Your task to perform on an android device: Go to Android settings Image 0: 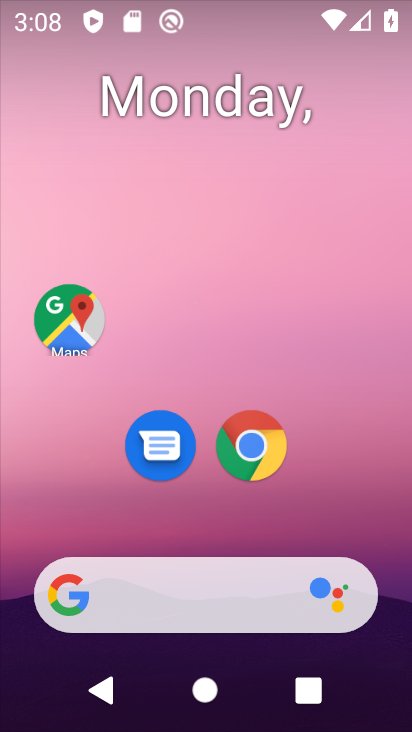
Step 0: drag from (357, 493) to (369, 92)
Your task to perform on an android device: Go to Android settings Image 1: 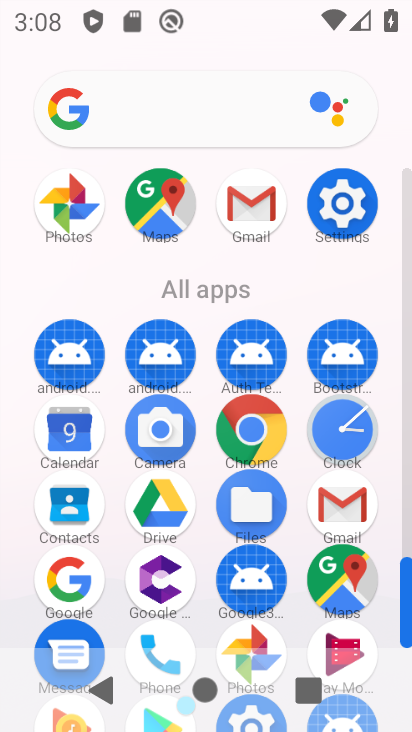
Step 1: click (335, 206)
Your task to perform on an android device: Go to Android settings Image 2: 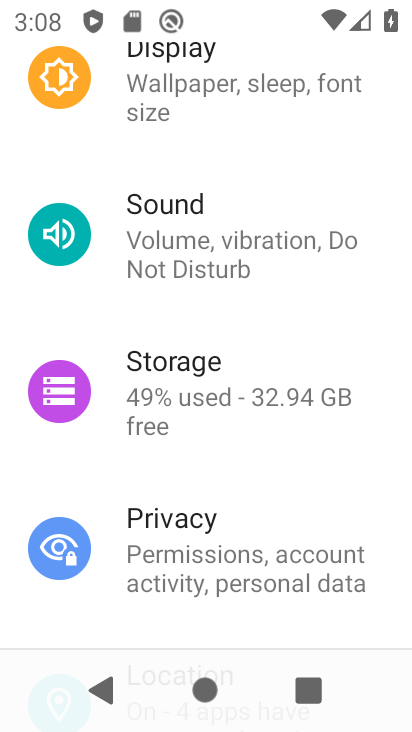
Step 2: drag from (211, 564) to (214, 113)
Your task to perform on an android device: Go to Android settings Image 3: 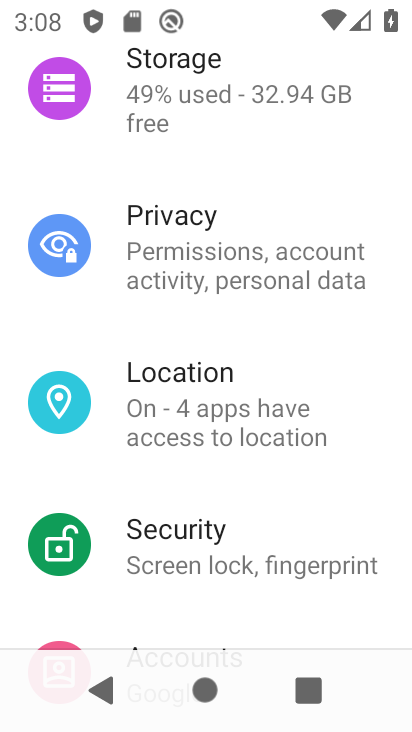
Step 3: drag from (221, 490) to (221, 209)
Your task to perform on an android device: Go to Android settings Image 4: 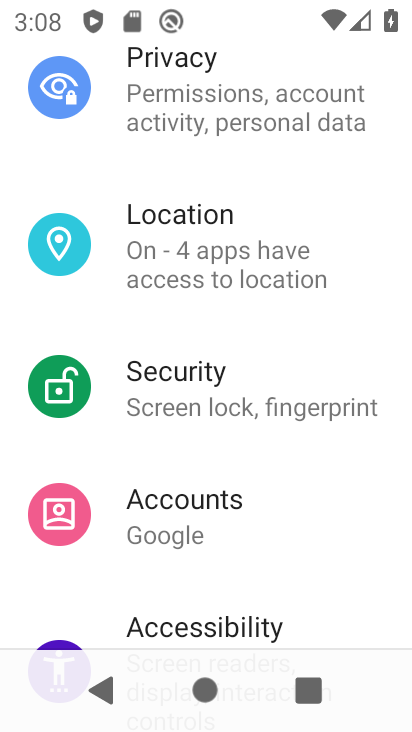
Step 4: drag from (224, 469) to (224, 193)
Your task to perform on an android device: Go to Android settings Image 5: 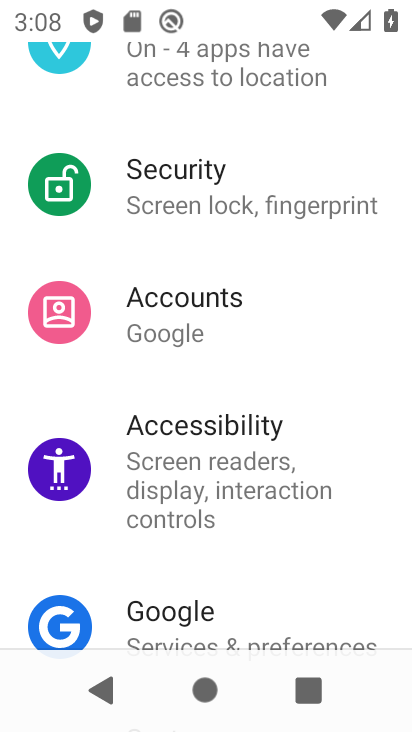
Step 5: drag from (236, 566) to (236, 219)
Your task to perform on an android device: Go to Android settings Image 6: 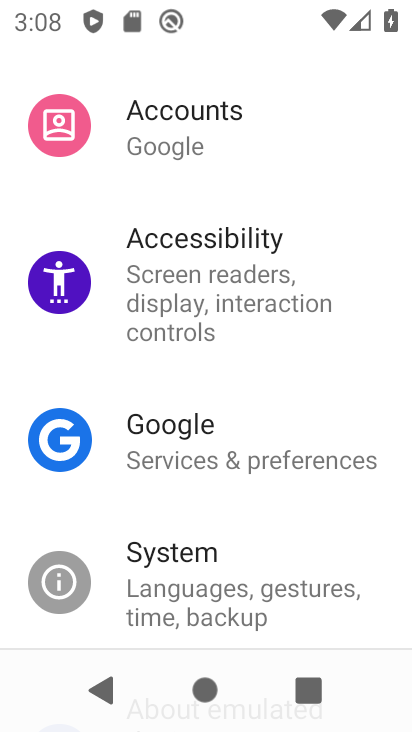
Step 6: drag from (274, 598) to (266, 388)
Your task to perform on an android device: Go to Android settings Image 7: 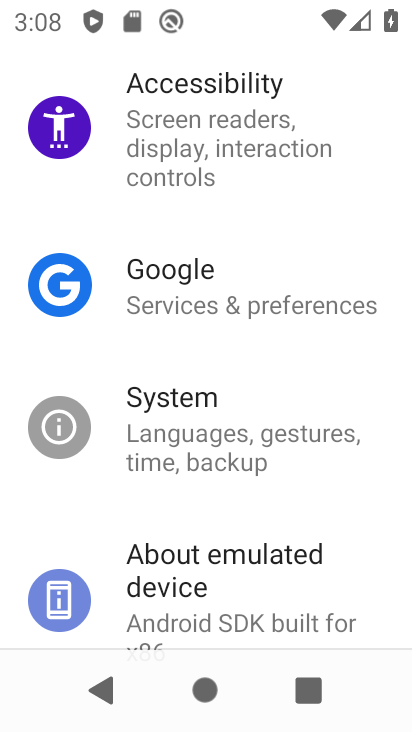
Step 7: drag from (267, 514) to (267, 392)
Your task to perform on an android device: Go to Android settings Image 8: 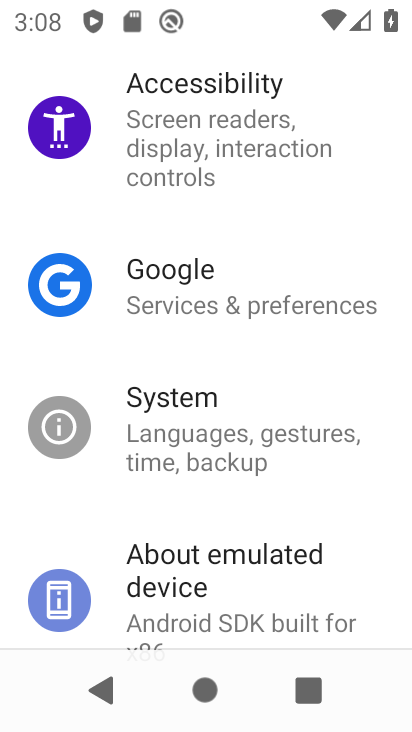
Step 8: click (262, 562)
Your task to perform on an android device: Go to Android settings Image 9: 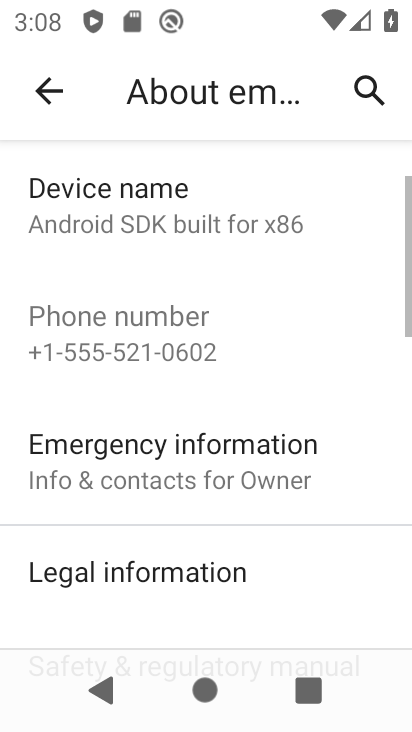
Step 9: drag from (240, 501) to (240, 84)
Your task to perform on an android device: Go to Android settings Image 10: 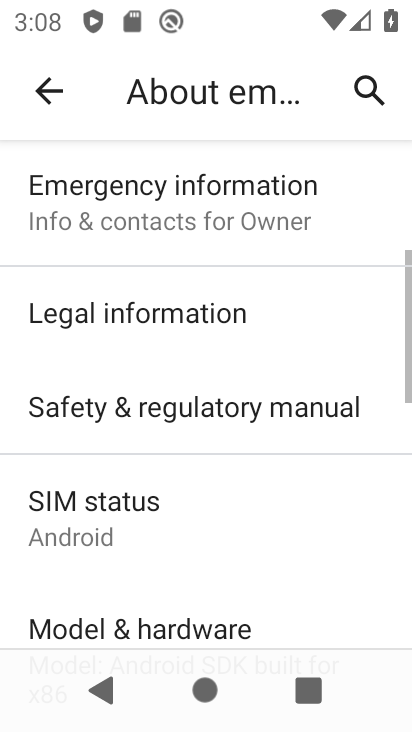
Step 10: drag from (183, 592) to (196, 234)
Your task to perform on an android device: Go to Android settings Image 11: 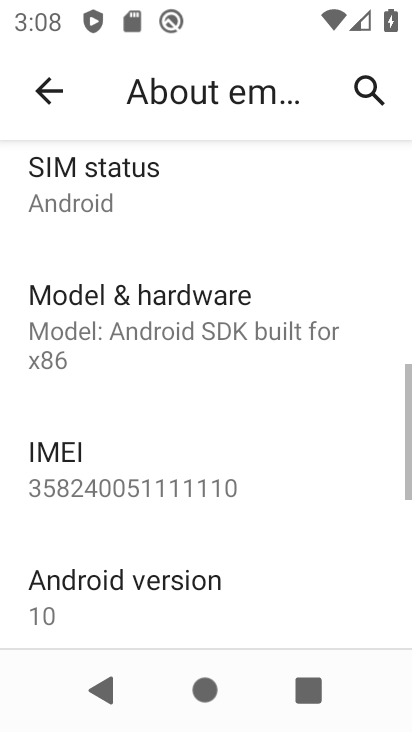
Step 11: click (169, 568)
Your task to perform on an android device: Go to Android settings Image 12: 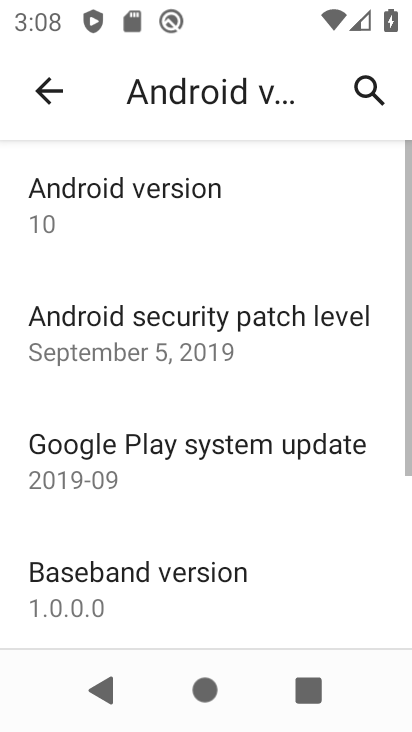
Step 12: task complete